Your task to perform on an android device: What's the weather going to be this weekend? Image 0: 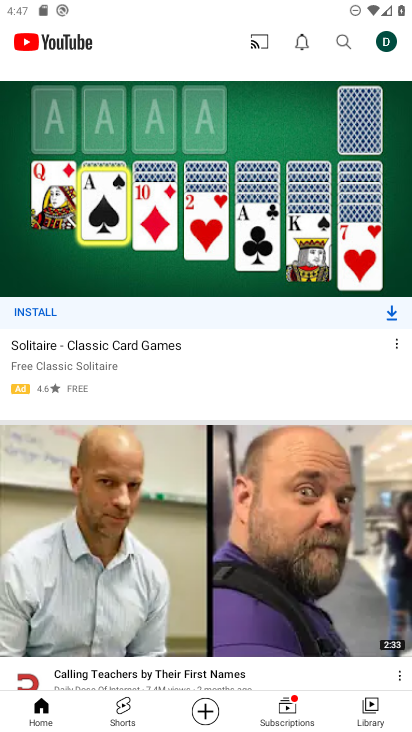
Step 0: press home button
Your task to perform on an android device: What's the weather going to be this weekend? Image 1: 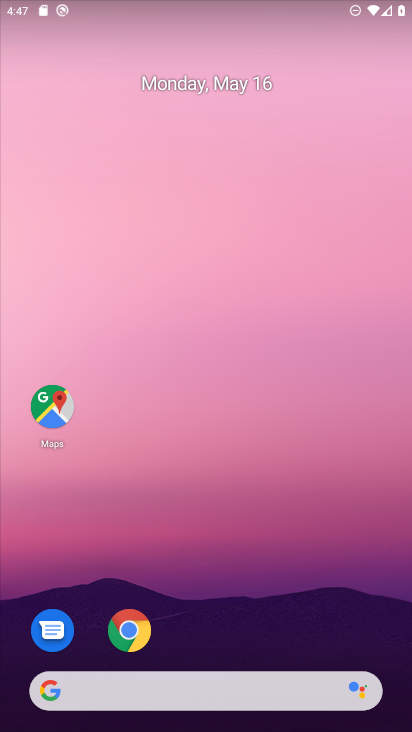
Step 1: click (149, 632)
Your task to perform on an android device: What's the weather going to be this weekend? Image 2: 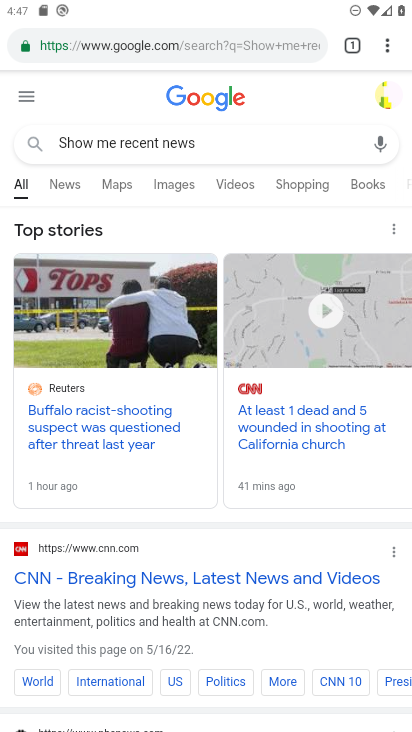
Step 2: click (172, 44)
Your task to perform on an android device: What's the weather going to be this weekend? Image 3: 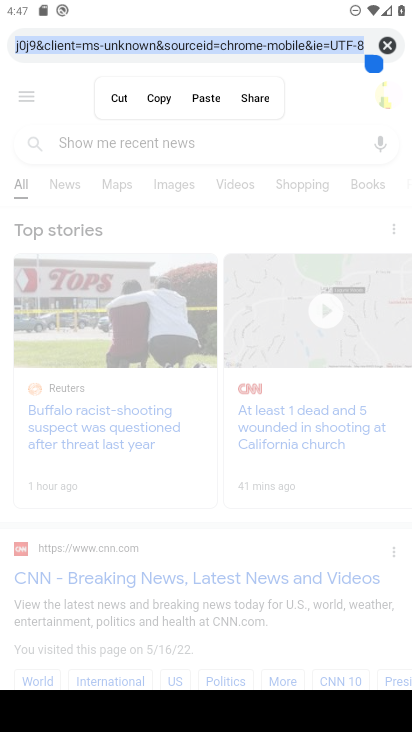
Step 3: click (388, 35)
Your task to perform on an android device: What's the weather going to be this weekend? Image 4: 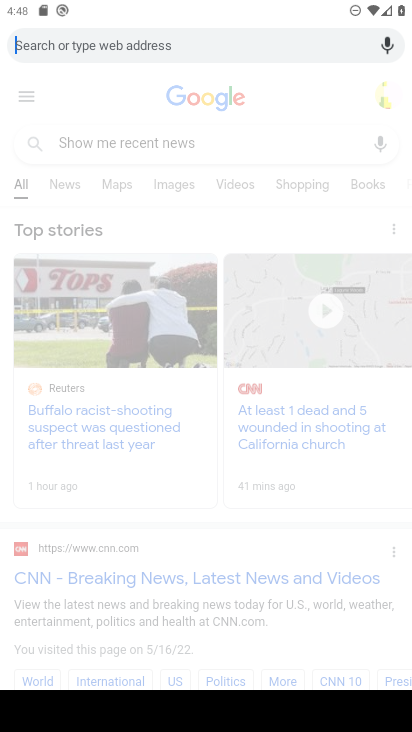
Step 4: type "What's the weather going to be this weekend?"
Your task to perform on an android device: What's the weather going to be this weekend? Image 5: 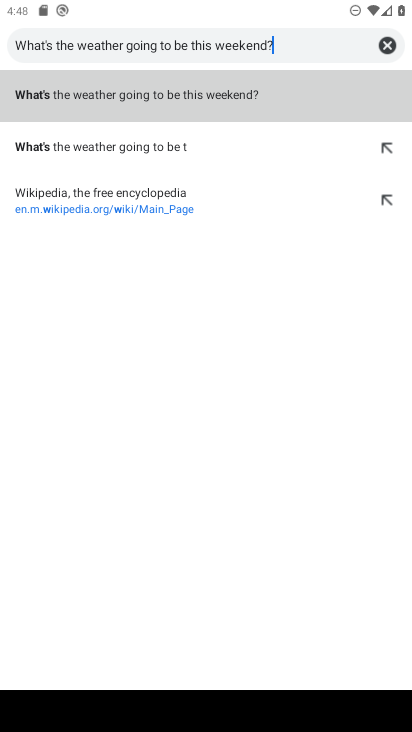
Step 5: type ""
Your task to perform on an android device: What's the weather going to be this weekend? Image 6: 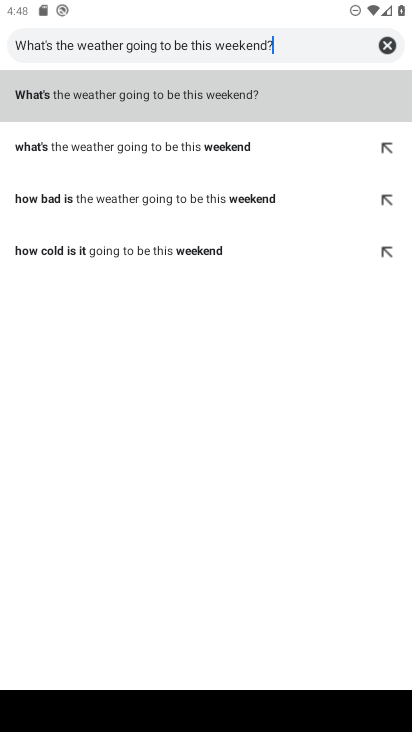
Step 6: click (188, 87)
Your task to perform on an android device: What's the weather going to be this weekend? Image 7: 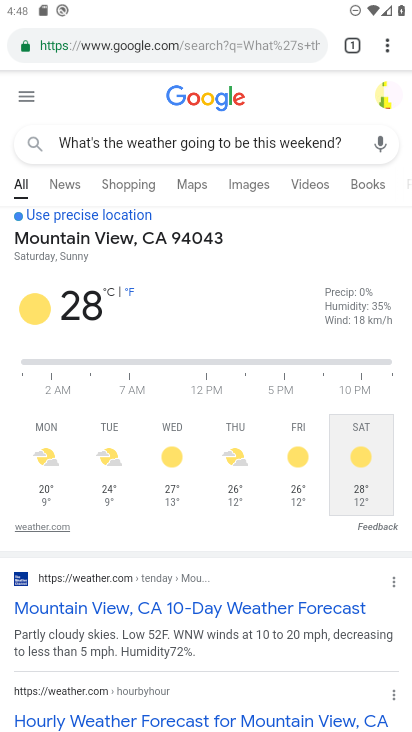
Step 7: task complete